Your task to perform on an android device: Do I have any events tomorrow? Image 0: 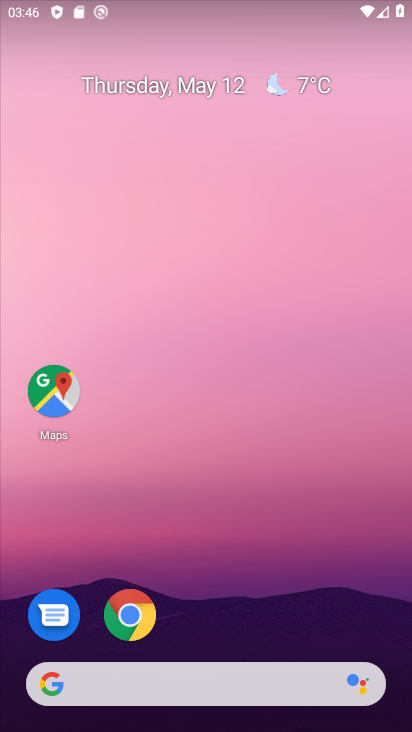
Step 0: drag from (299, 605) to (251, 130)
Your task to perform on an android device: Do I have any events tomorrow? Image 1: 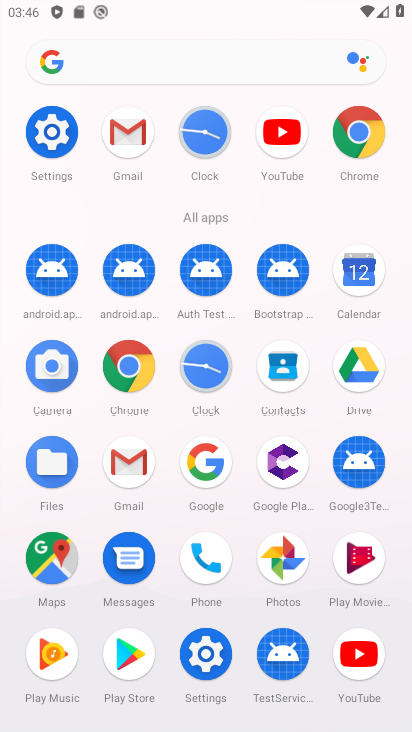
Step 1: click (202, 664)
Your task to perform on an android device: Do I have any events tomorrow? Image 2: 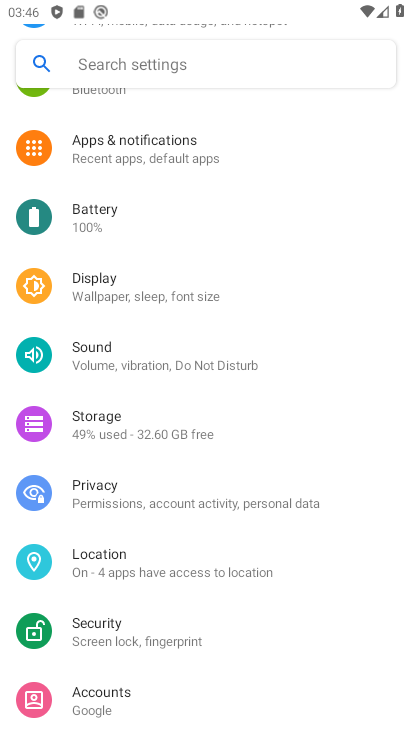
Step 2: press home button
Your task to perform on an android device: Do I have any events tomorrow? Image 3: 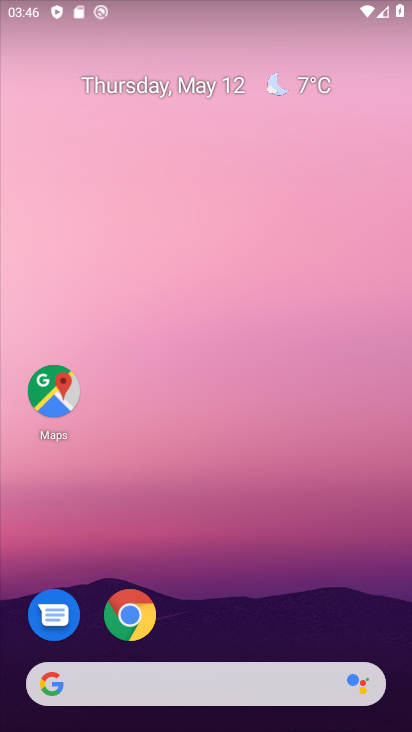
Step 3: drag from (249, 634) to (230, 121)
Your task to perform on an android device: Do I have any events tomorrow? Image 4: 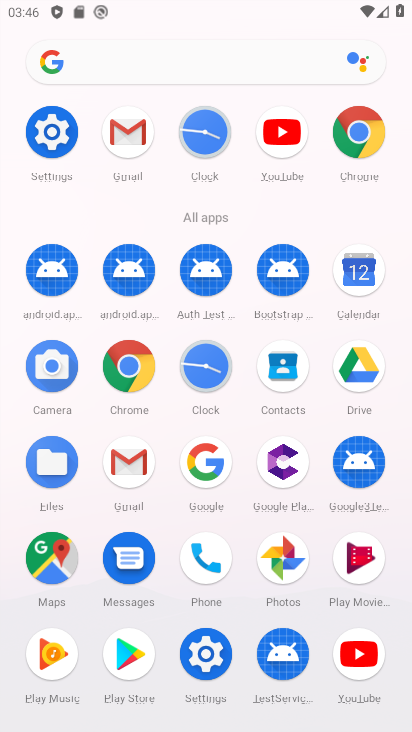
Step 4: click (352, 278)
Your task to perform on an android device: Do I have any events tomorrow? Image 5: 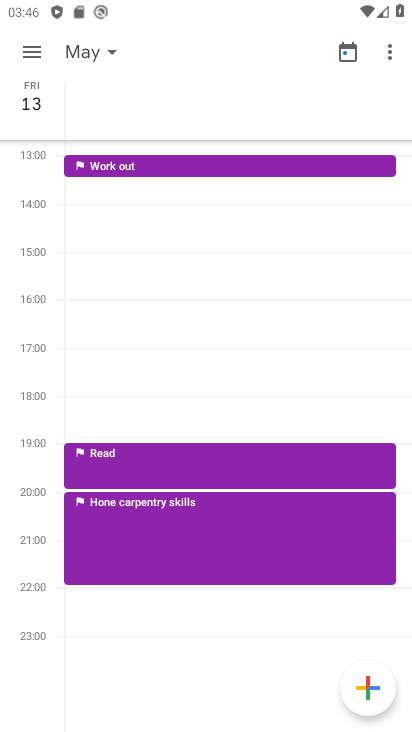
Step 5: click (39, 41)
Your task to perform on an android device: Do I have any events tomorrow? Image 6: 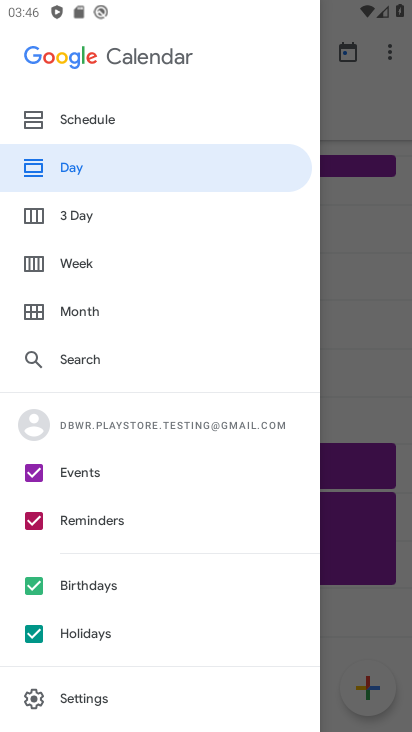
Step 6: click (373, 185)
Your task to perform on an android device: Do I have any events tomorrow? Image 7: 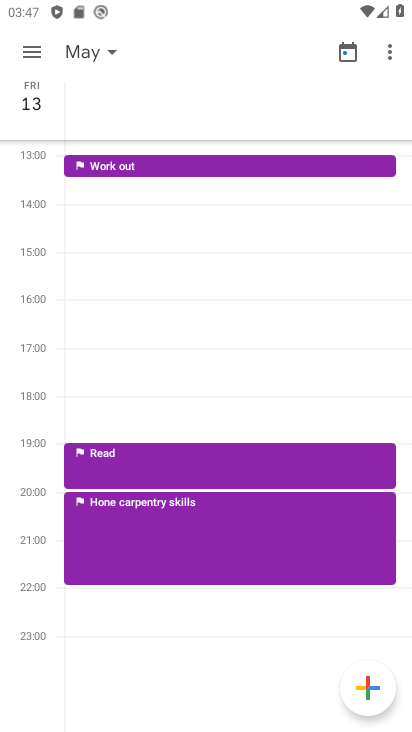
Step 7: click (97, 60)
Your task to perform on an android device: Do I have any events tomorrow? Image 8: 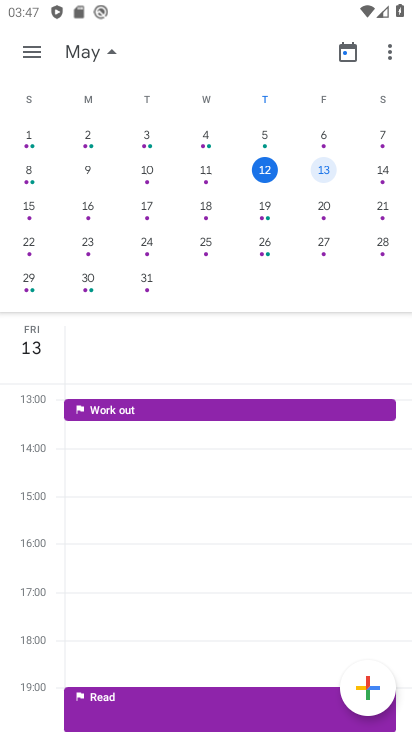
Step 8: click (329, 172)
Your task to perform on an android device: Do I have any events tomorrow? Image 9: 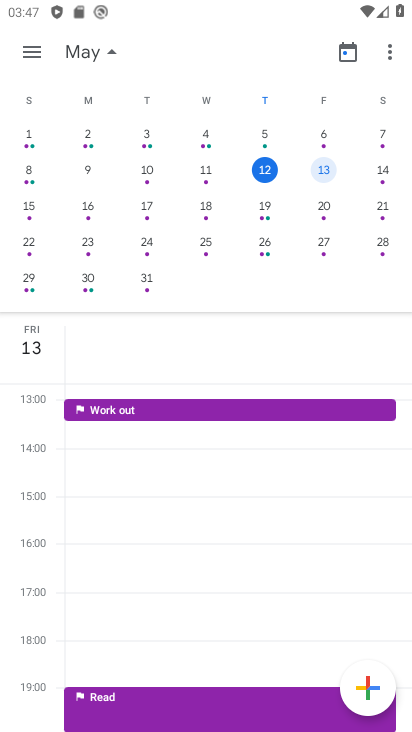
Step 9: task complete